Your task to perform on an android device: Open settings on Google Maps Image 0: 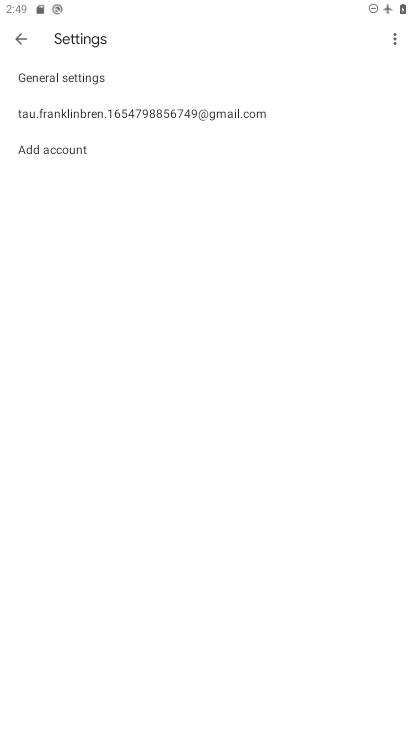
Step 0: press home button
Your task to perform on an android device: Open settings on Google Maps Image 1: 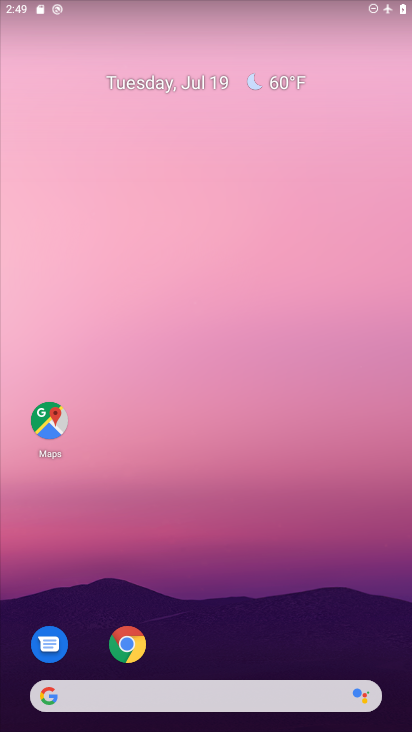
Step 1: drag from (192, 684) to (128, 71)
Your task to perform on an android device: Open settings on Google Maps Image 2: 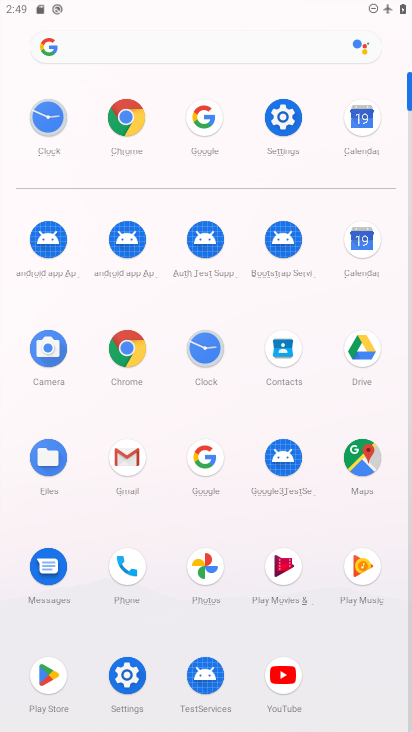
Step 2: click (361, 459)
Your task to perform on an android device: Open settings on Google Maps Image 3: 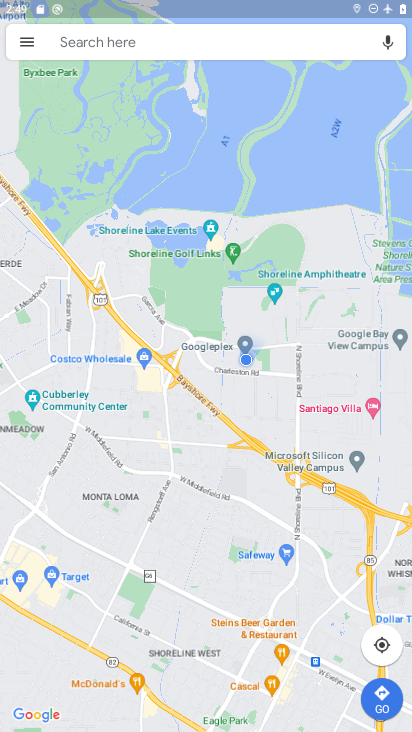
Step 3: click (0, 48)
Your task to perform on an android device: Open settings on Google Maps Image 4: 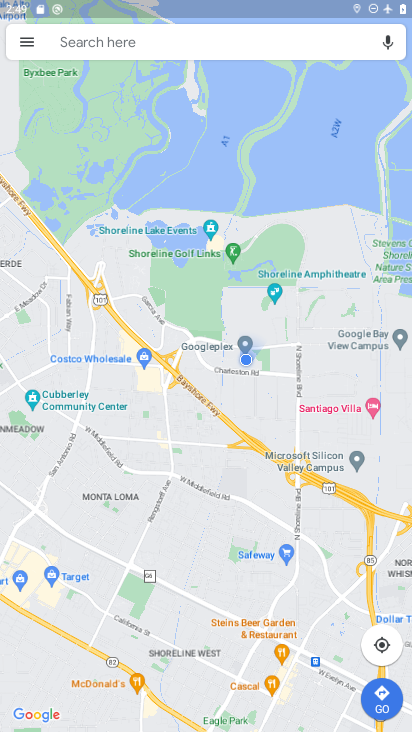
Step 4: drag from (32, 46) to (96, 291)
Your task to perform on an android device: Open settings on Google Maps Image 5: 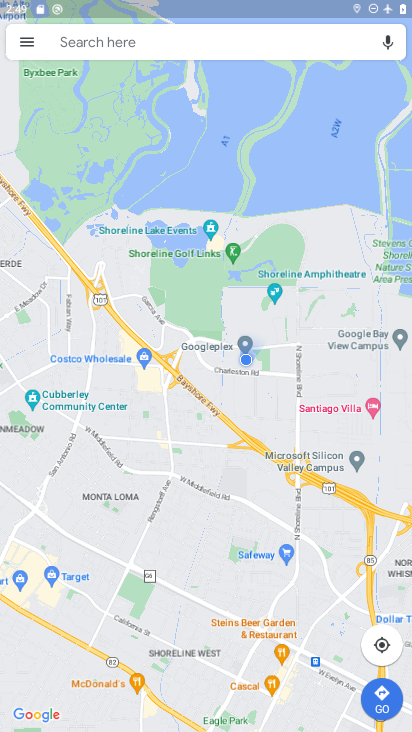
Step 5: click (19, 37)
Your task to perform on an android device: Open settings on Google Maps Image 6: 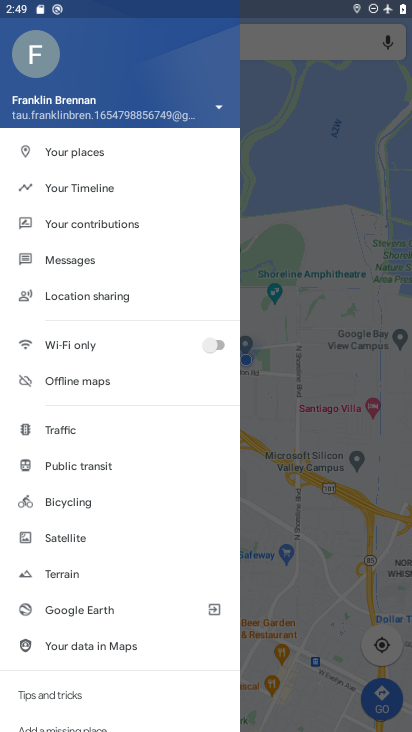
Step 6: drag from (113, 670) to (113, 206)
Your task to perform on an android device: Open settings on Google Maps Image 7: 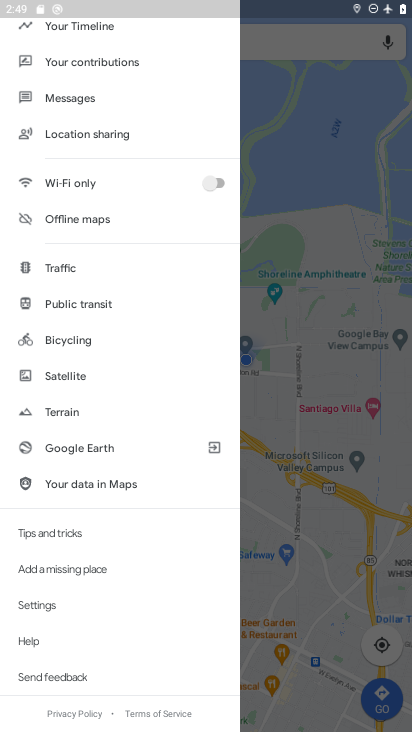
Step 7: click (49, 606)
Your task to perform on an android device: Open settings on Google Maps Image 8: 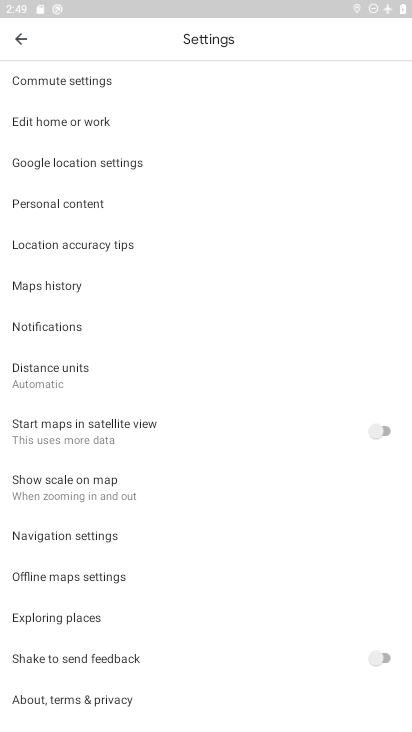
Step 8: task complete